Your task to perform on an android device: Open privacy settings Image 0: 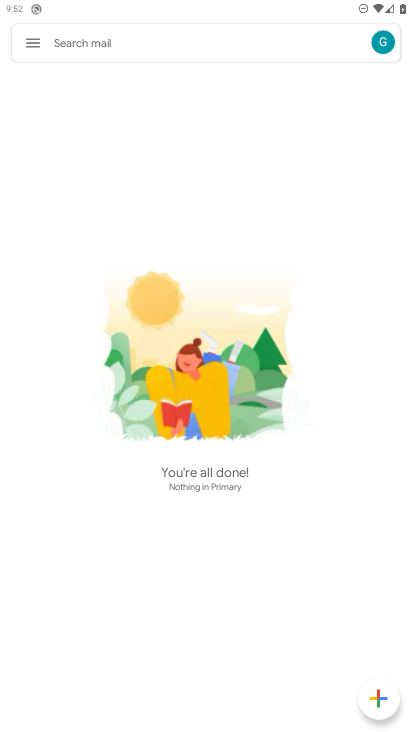
Step 0: press home button
Your task to perform on an android device: Open privacy settings Image 1: 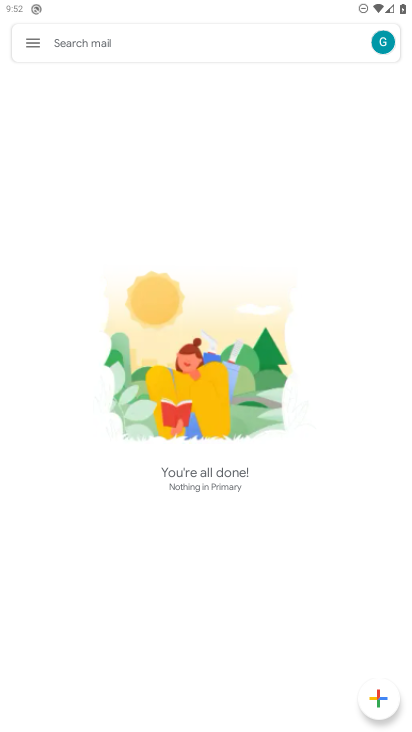
Step 1: drag from (223, 431) to (283, 168)
Your task to perform on an android device: Open privacy settings Image 2: 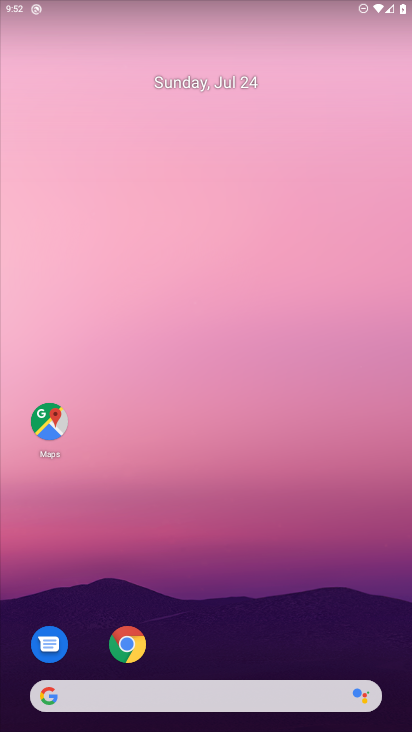
Step 2: drag from (239, 655) to (251, 90)
Your task to perform on an android device: Open privacy settings Image 3: 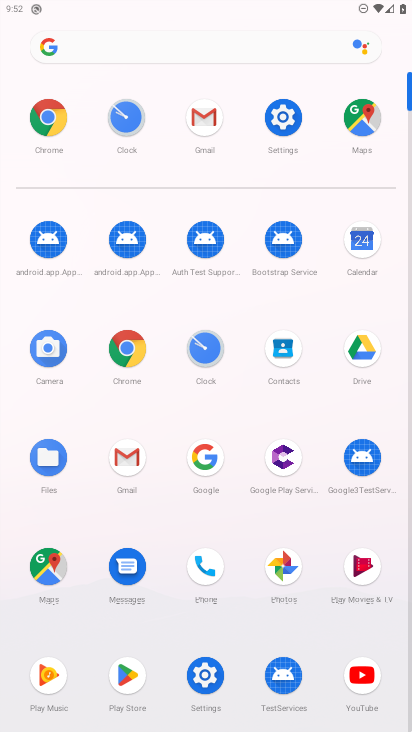
Step 3: click (270, 107)
Your task to perform on an android device: Open privacy settings Image 4: 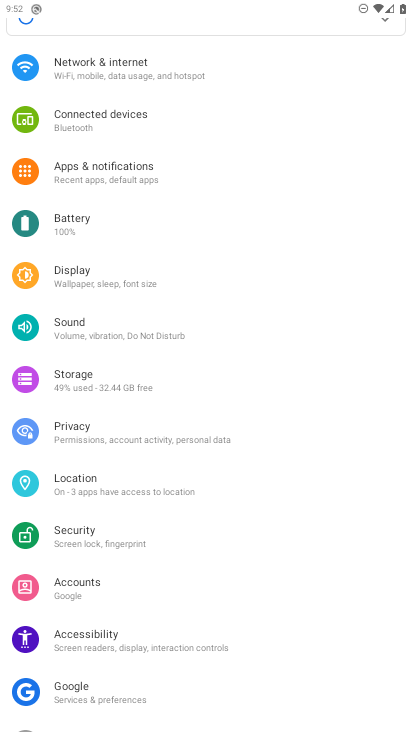
Step 4: click (66, 423)
Your task to perform on an android device: Open privacy settings Image 5: 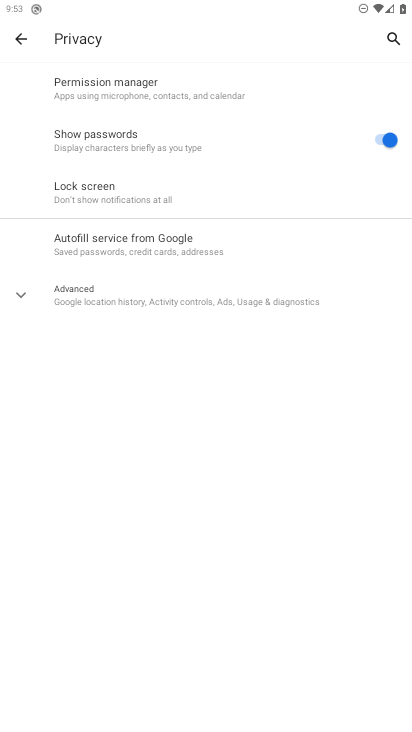
Step 5: task complete